Your task to perform on an android device: open app "Nova Launcher" Image 0: 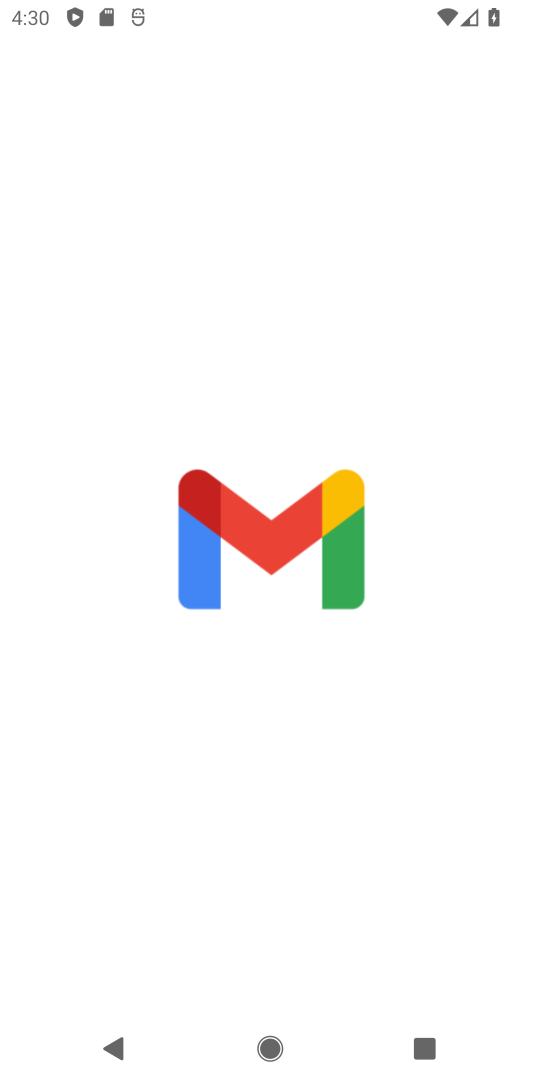
Step 0: click (255, 271)
Your task to perform on an android device: open app "Nova Launcher" Image 1: 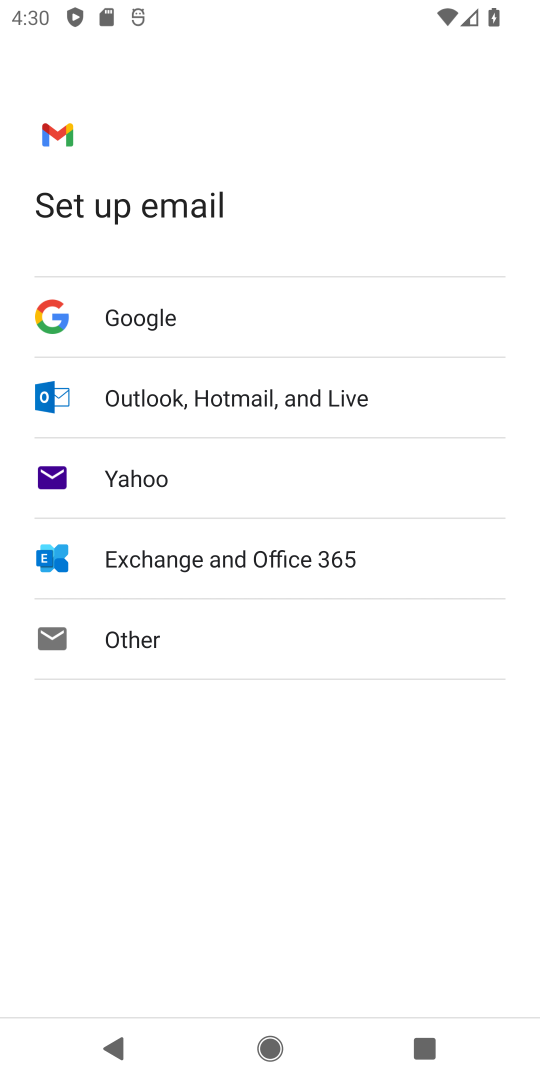
Step 1: press back button
Your task to perform on an android device: open app "Nova Launcher" Image 2: 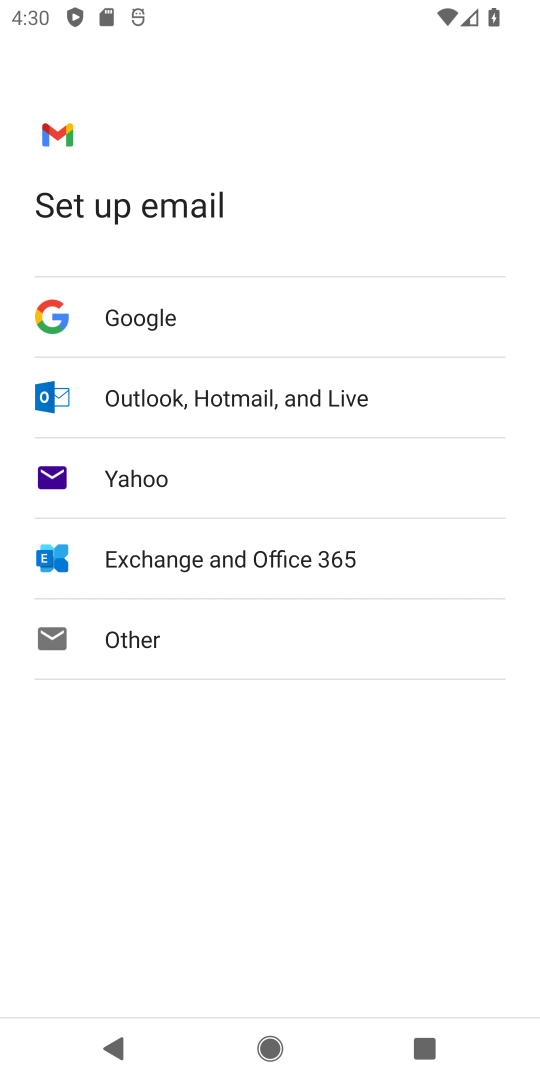
Step 2: press back button
Your task to perform on an android device: open app "Nova Launcher" Image 3: 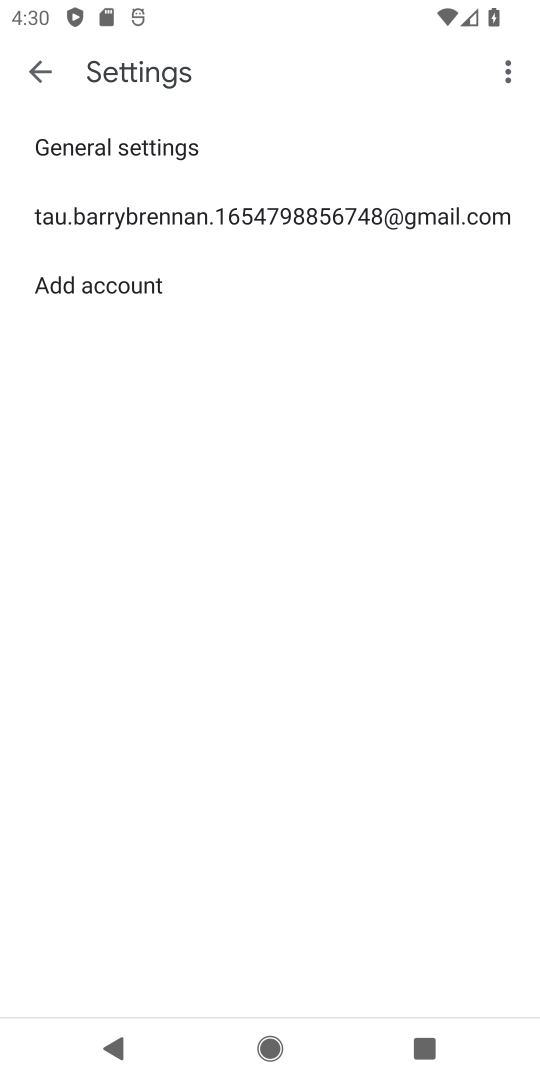
Step 3: press back button
Your task to perform on an android device: open app "Nova Launcher" Image 4: 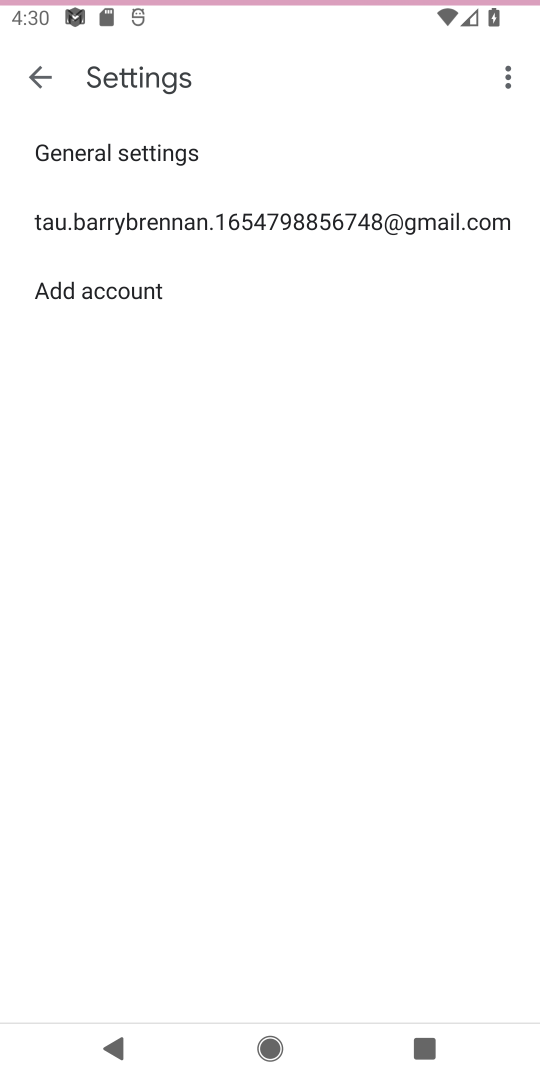
Step 4: press back button
Your task to perform on an android device: open app "Nova Launcher" Image 5: 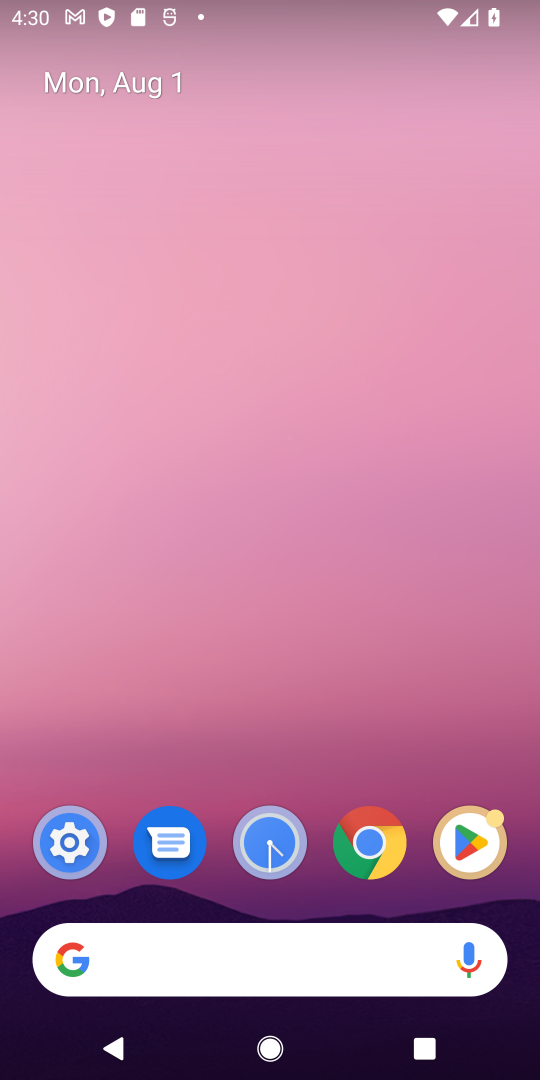
Step 5: click (448, 837)
Your task to perform on an android device: open app "Nova Launcher" Image 6: 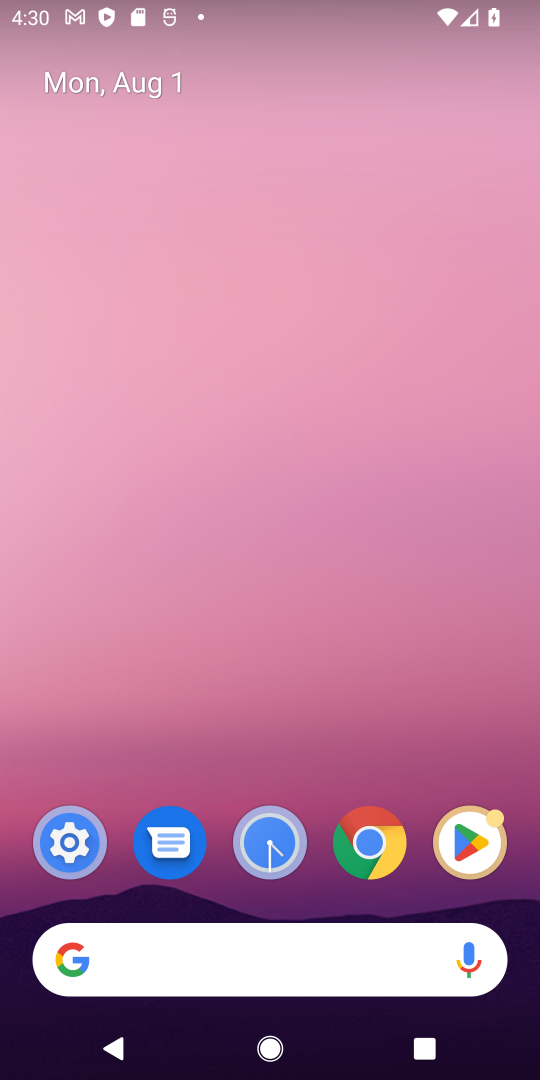
Step 6: drag from (462, 823) to (507, 855)
Your task to perform on an android device: open app "Nova Launcher" Image 7: 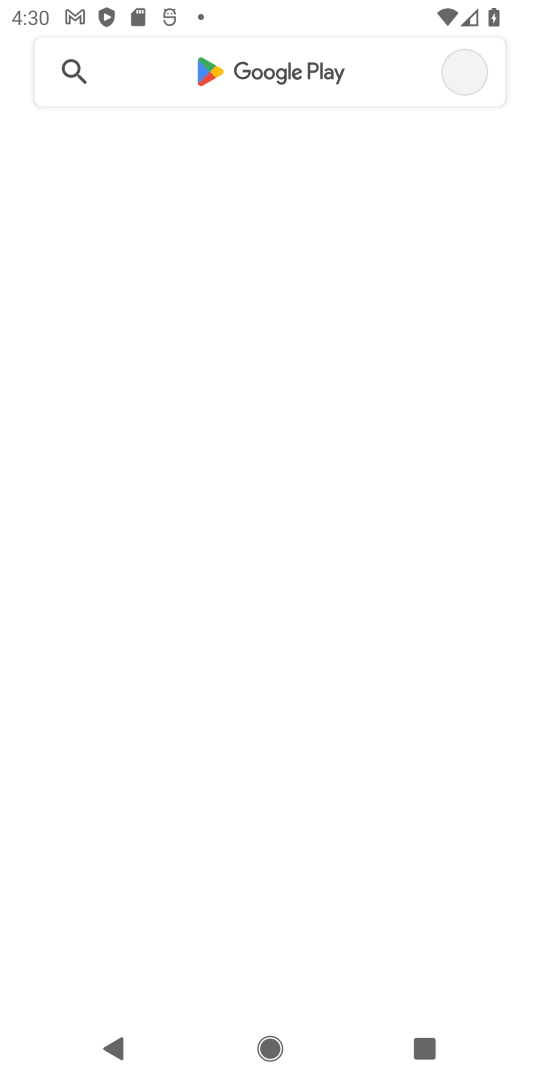
Step 7: click (453, 838)
Your task to perform on an android device: open app "Nova Launcher" Image 8: 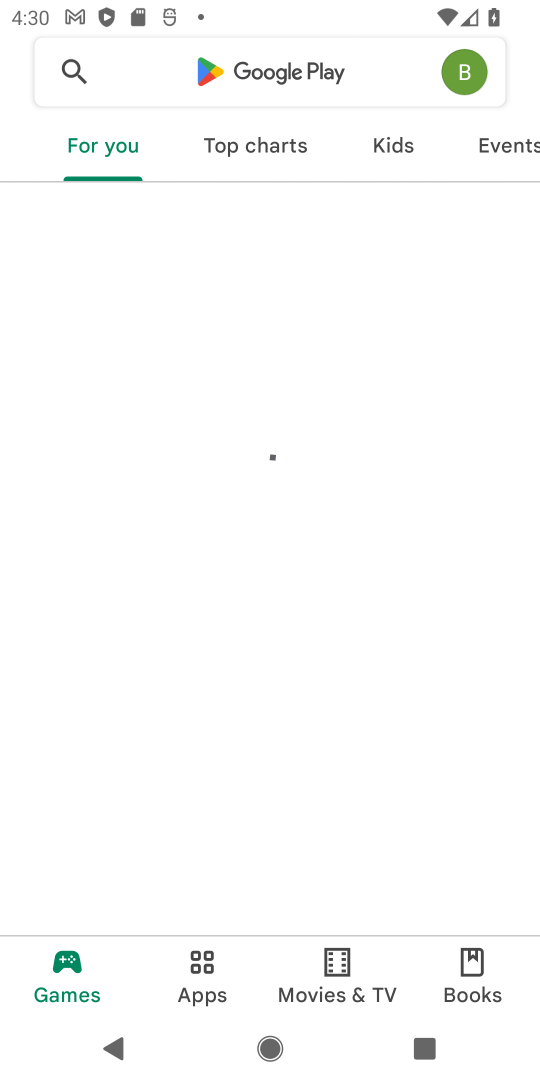
Step 8: click (223, 62)
Your task to perform on an android device: open app "Nova Launcher" Image 9: 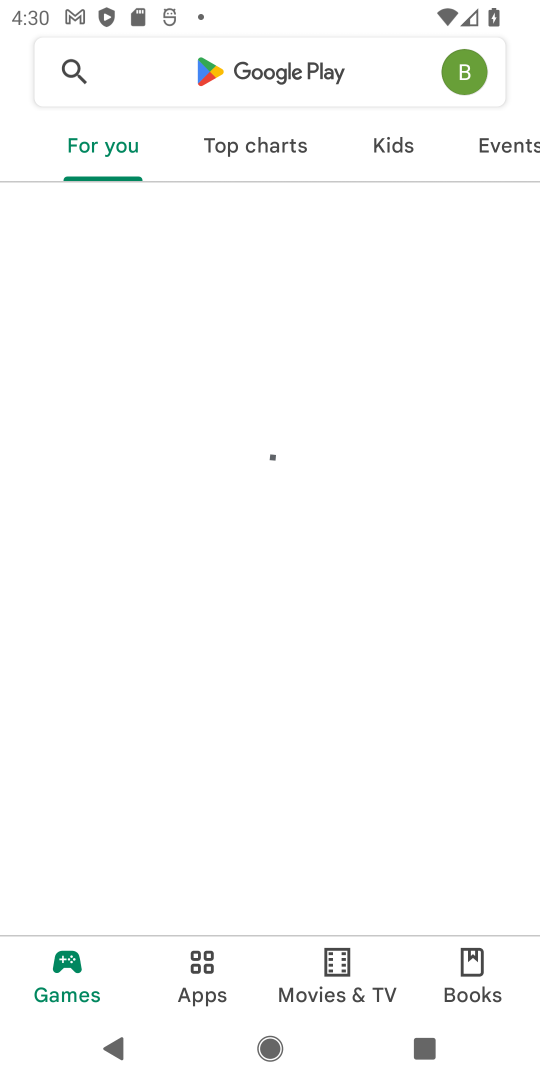
Step 9: click (205, 76)
Your task to perform on an android device: open app "Nova Launcher" Image 10: 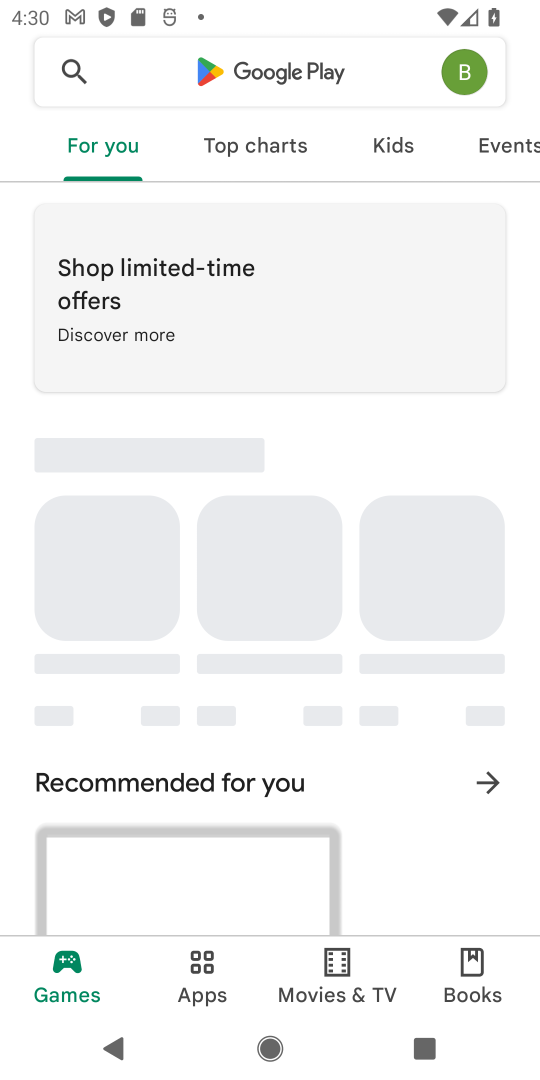
Step 10: click (207, 77)
Your task to perform on an android device: open app "Nova Launcher" Image 11: 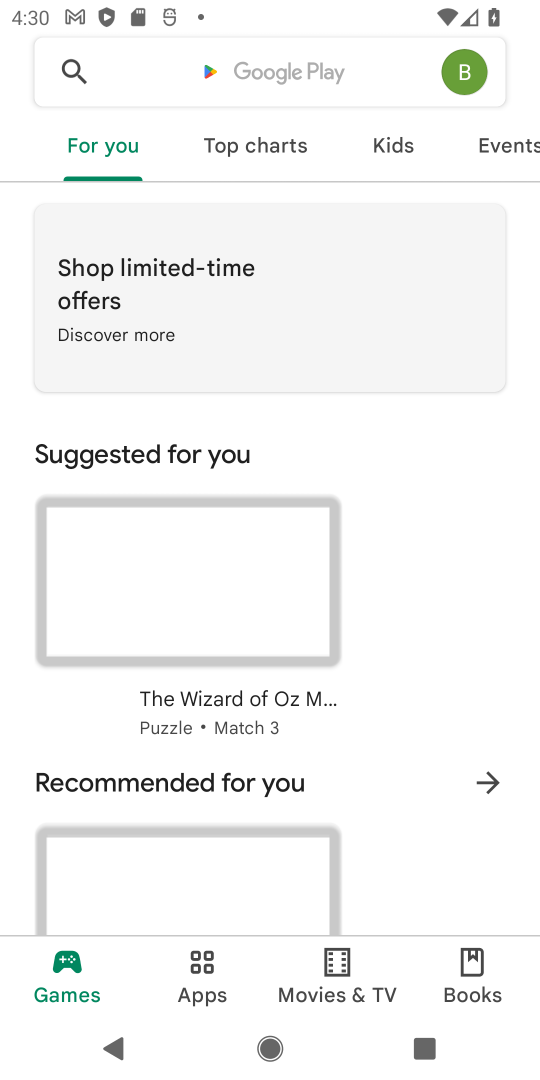
Step 11: click (207, 77)
Your task to perform on an android device: open app "Nova Launcher" Image 12: 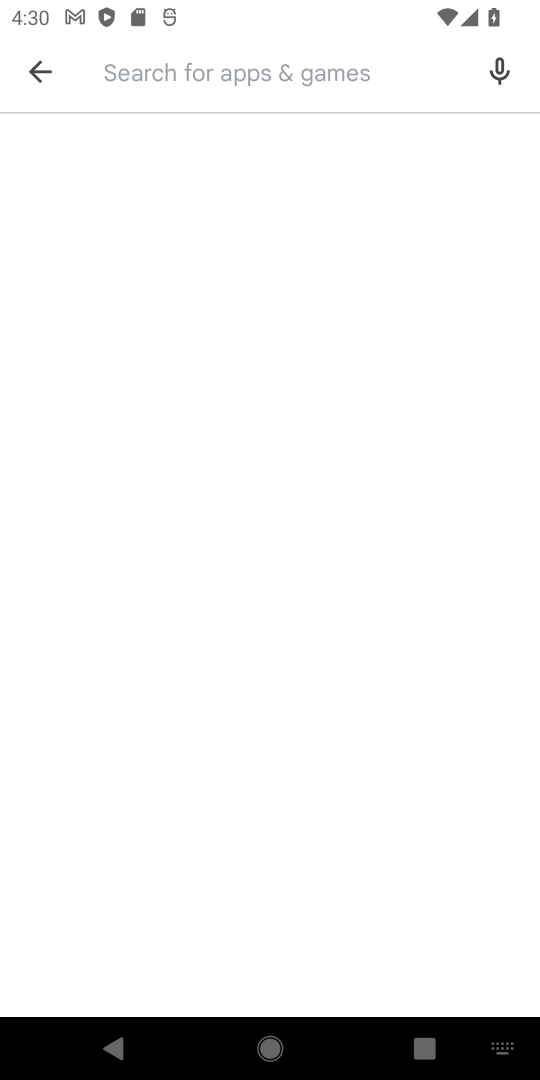
Step 12: type "Nova Launcher"
Your task to perform on an android device: open app "Nova Launcher" Image 13: 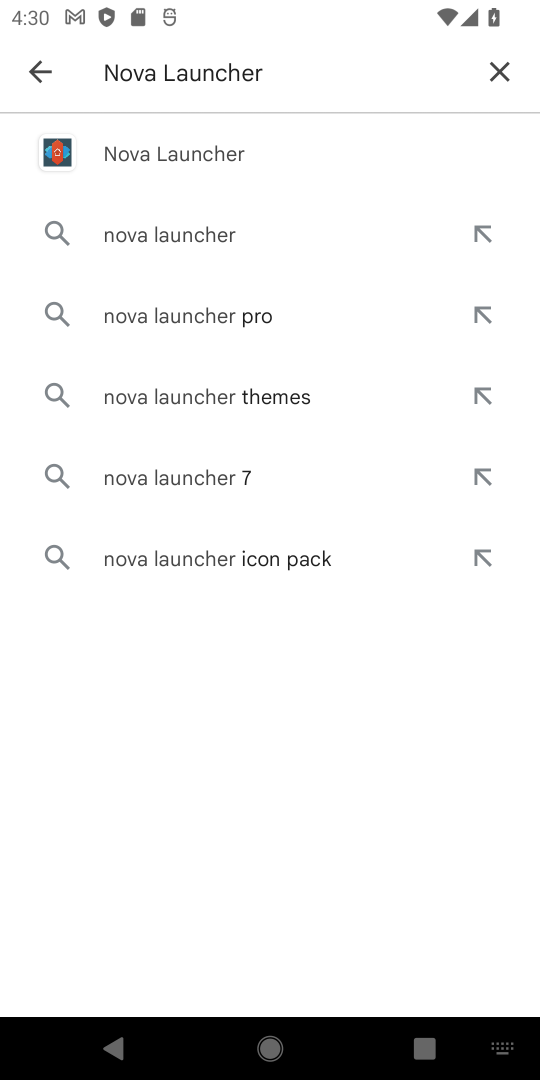
Step 13: click (198, 158)
Your task to perform on an android device: open app "Nova Launcher" Image 14: 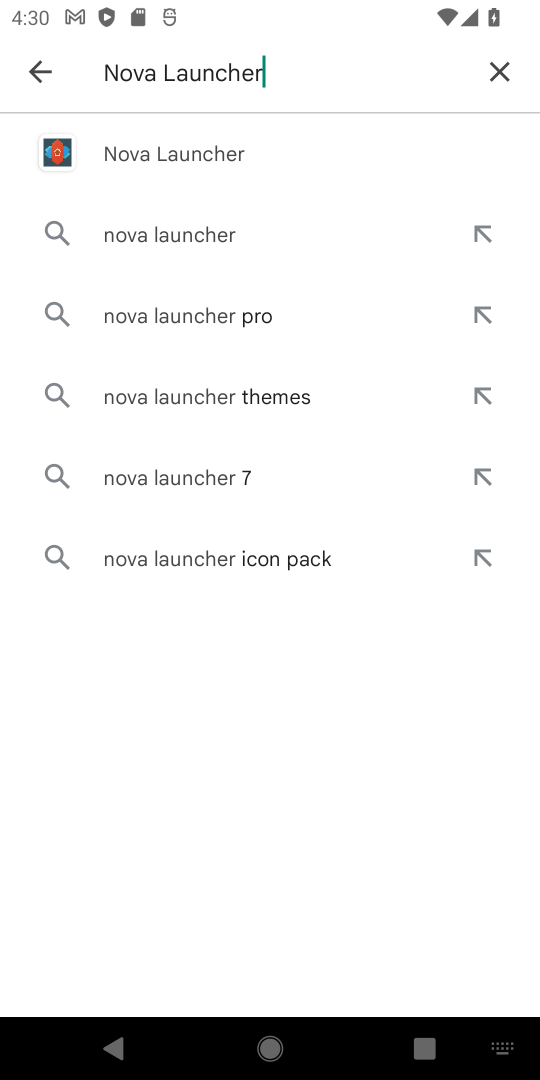
Step 14: click (212, 173)
Your task to perform on an android device: open app "Nova Launcher" Image 15: 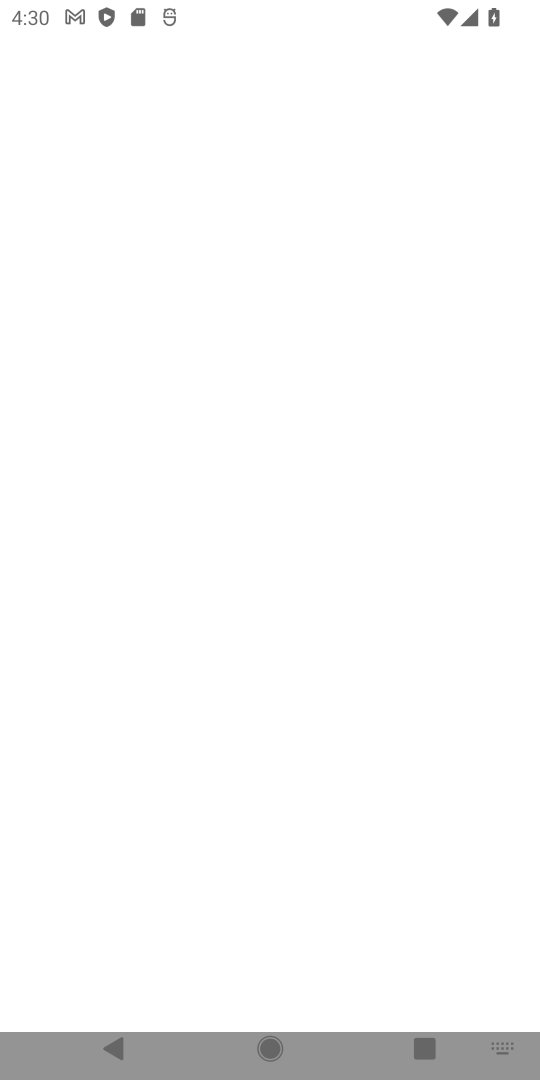
Step 15: click (212, 176)
Your task to perform on an android device: open app "Nova Launcher" Image 16: 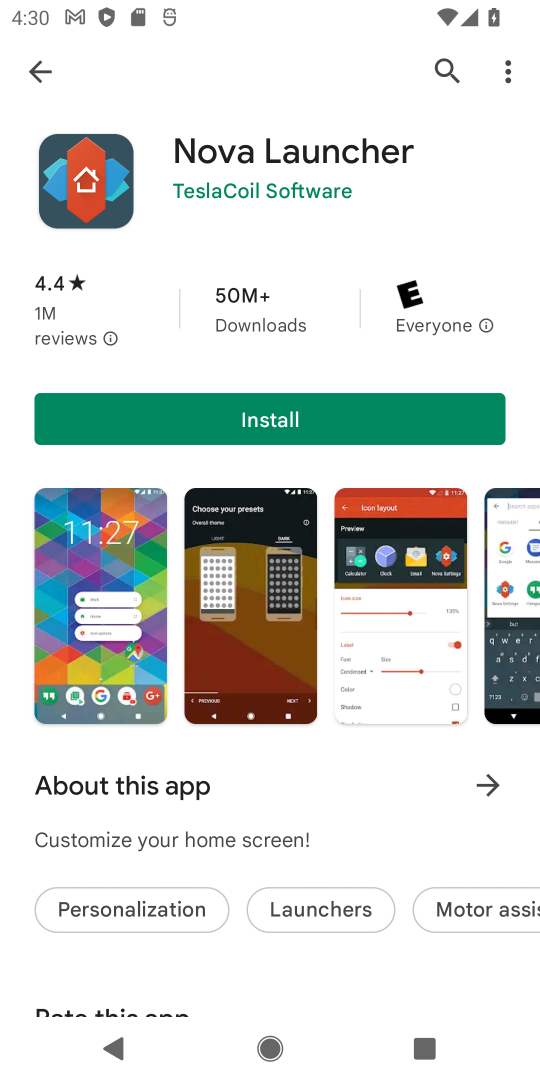
Step 16: click (331, 427)
Your task to perform on an android device: open app "Nova Launcher" Image 17: 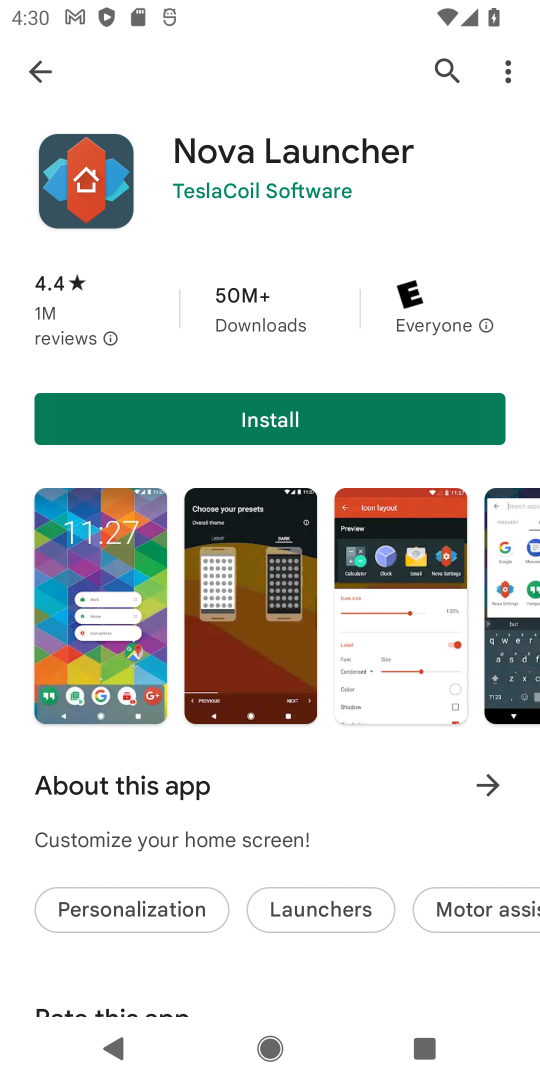
Step 17: click (331, 430)
Your task to perform on an android device: open app "Nova Launcher" Image 18: 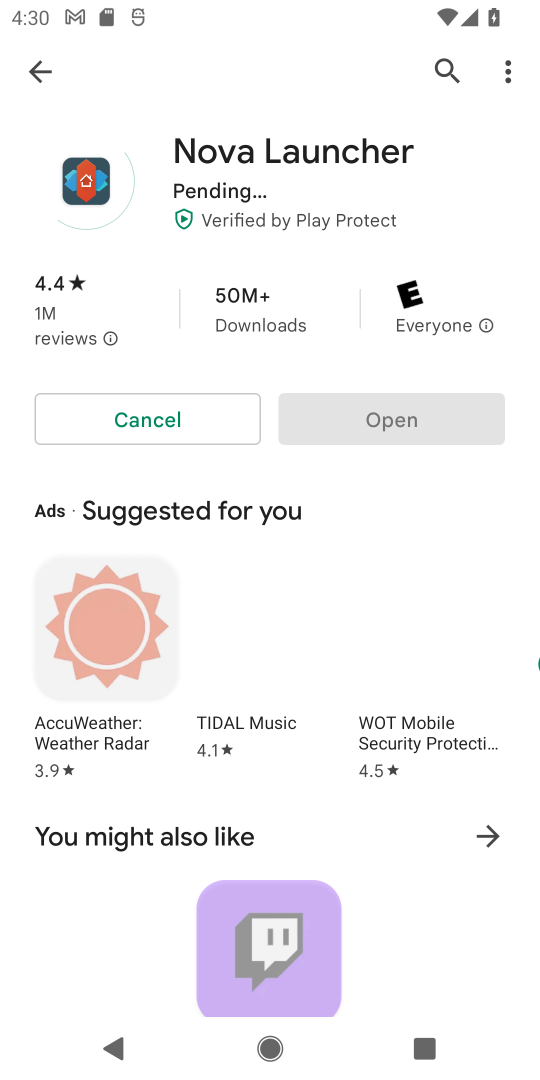
Step 18: click (331, 431)
Your task to perform on an android device: open app "Nova Launcher" Image 19: 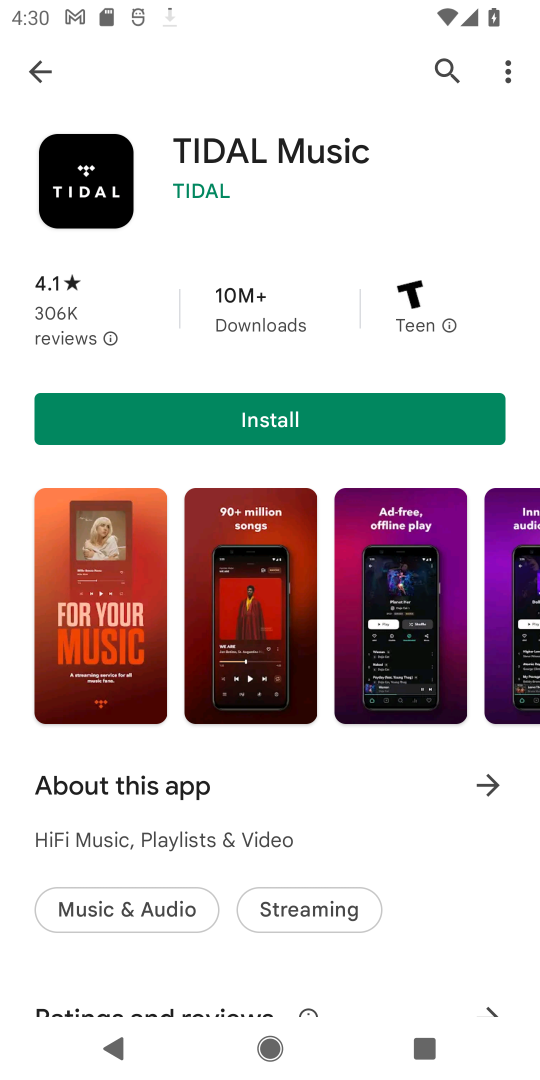
Step 19: click (307, 412)
Your task to perform on an android device: open app "Nova Launcher" Image 20: 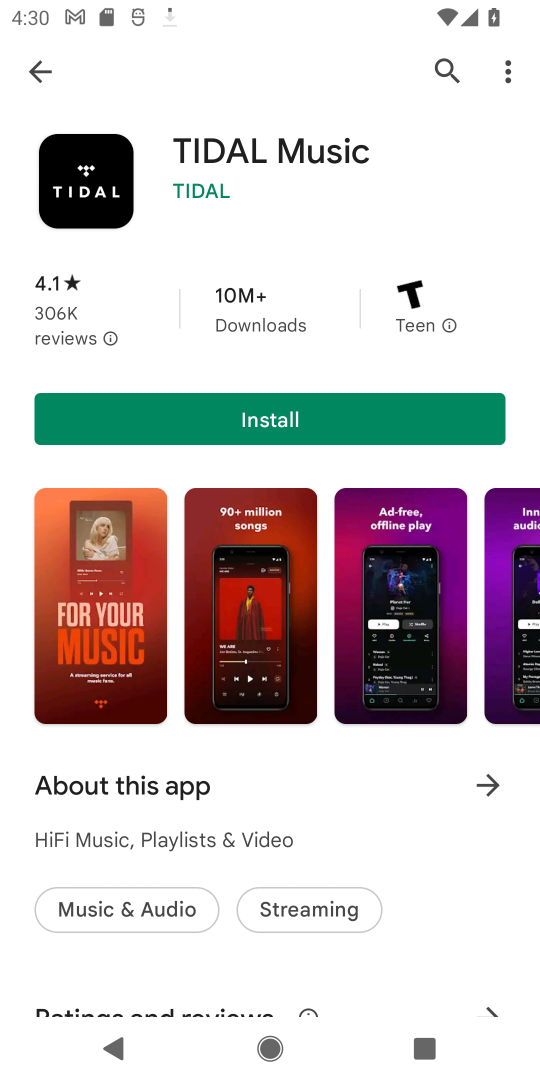
Step 20: click (41, 72)
Your task to perform on an android device: open app "Nova Launcher" Image 21: 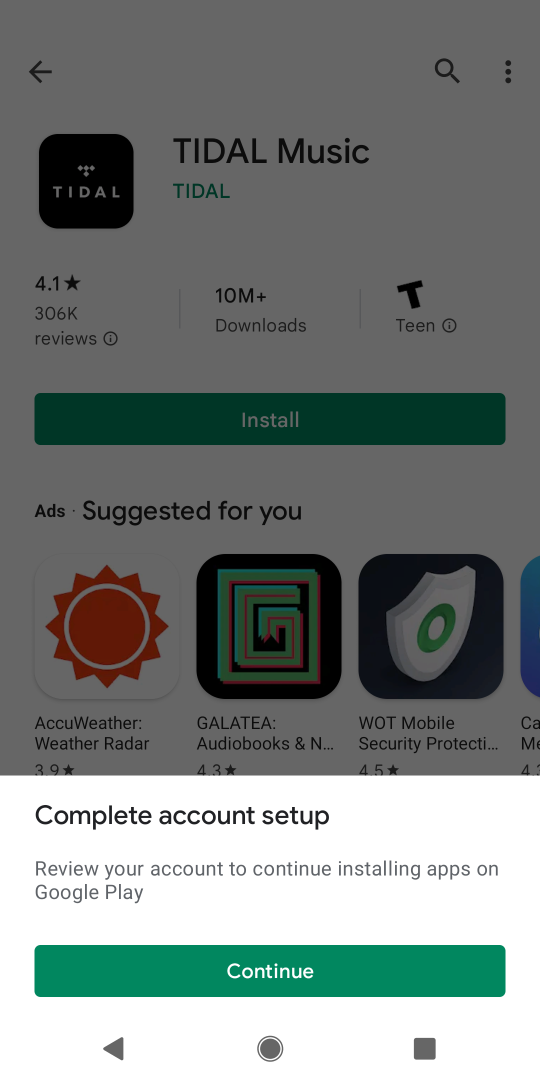
Step 21: click (25, 72)
Your task to perform on an android device: open app "Nova Launcher" Image 22: 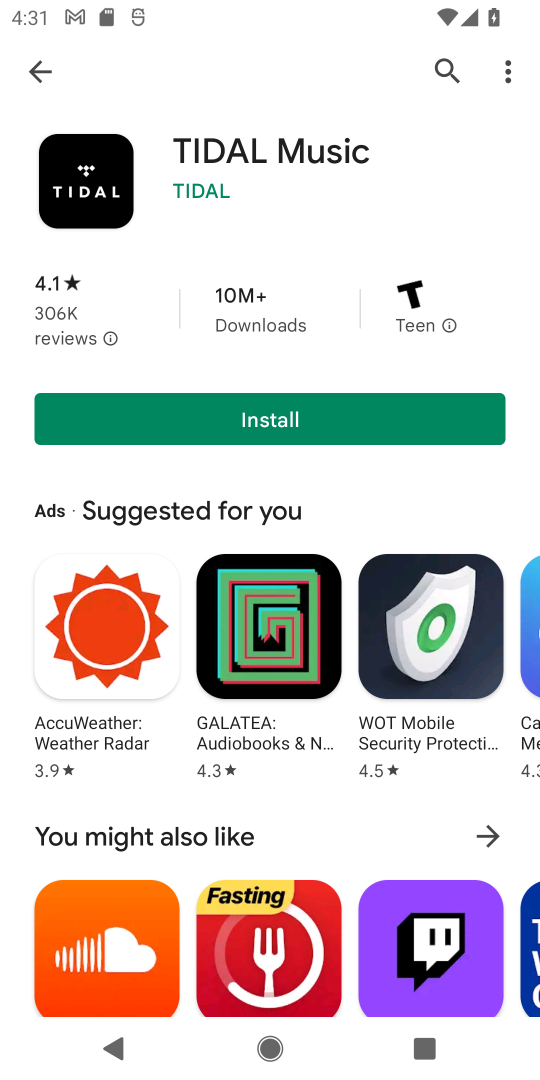
Step 22: click (28, 76)
Your task to perform on an android device: open app "Nova Launcher" Image 23: 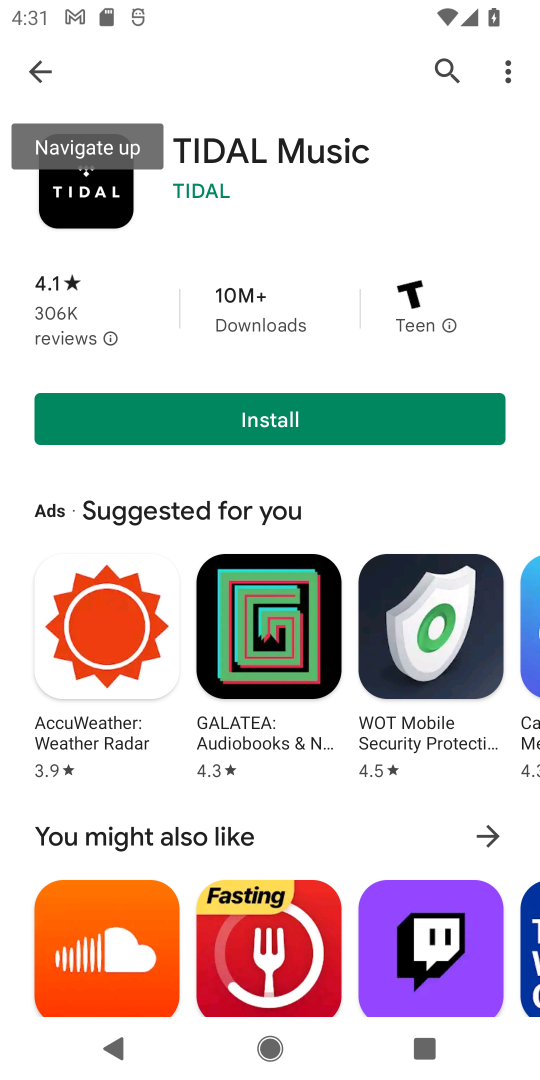
Step 23: click (28, 76)
Your task to perform on an android device: open app "Nova Launcher" Image 24: 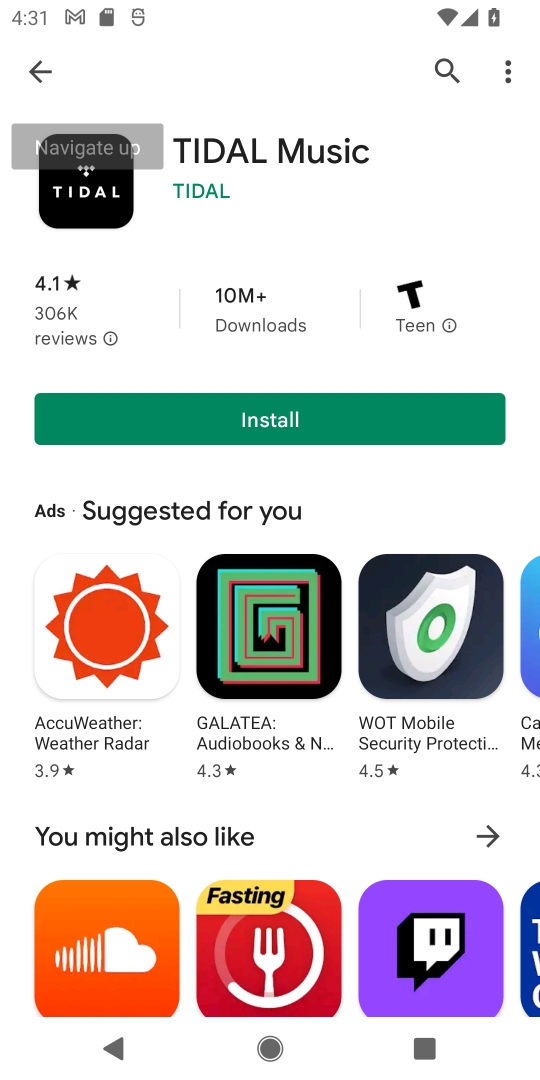
Step 24: click (36, 76)
Your task to perform on an android device: open app "Nova Launcher" Image 25: 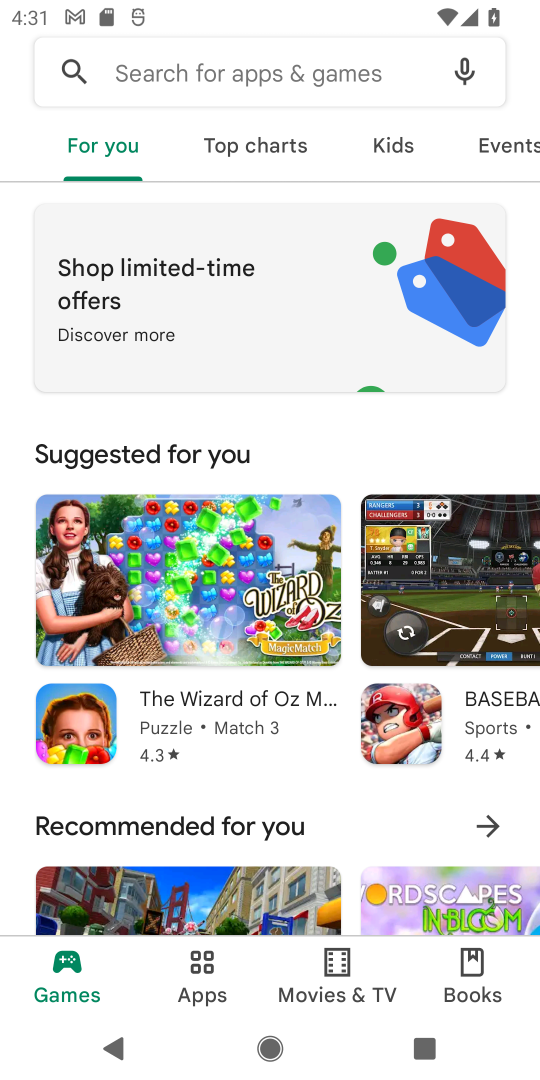
Step 25: click (168, 76)
Your task to perform on an android device: open app "Nova Launcher" Image 26: 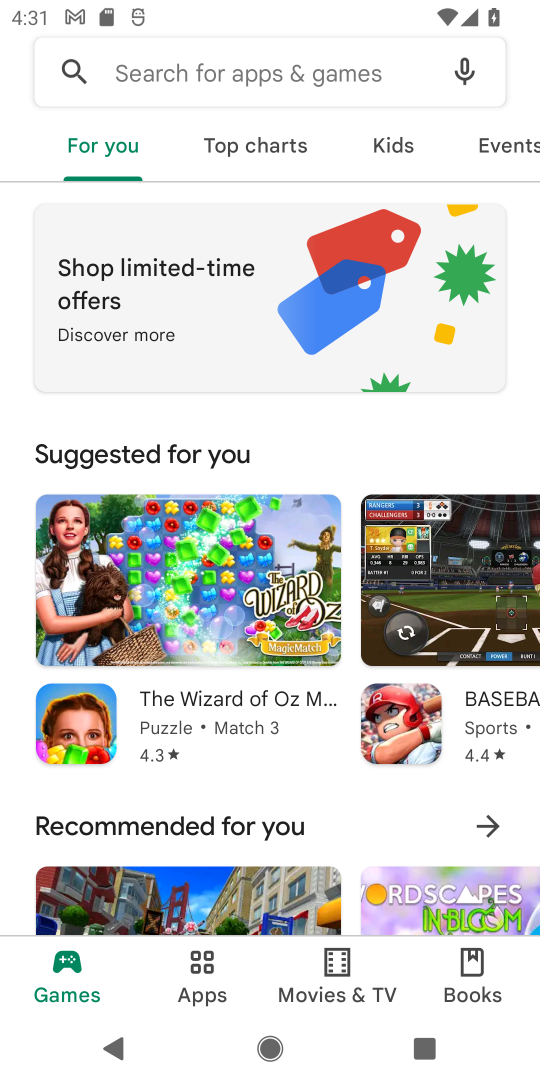
Step 26: click (180, 83)
Your task to perform on an android device: open app "Nova Launcher" Image 27: 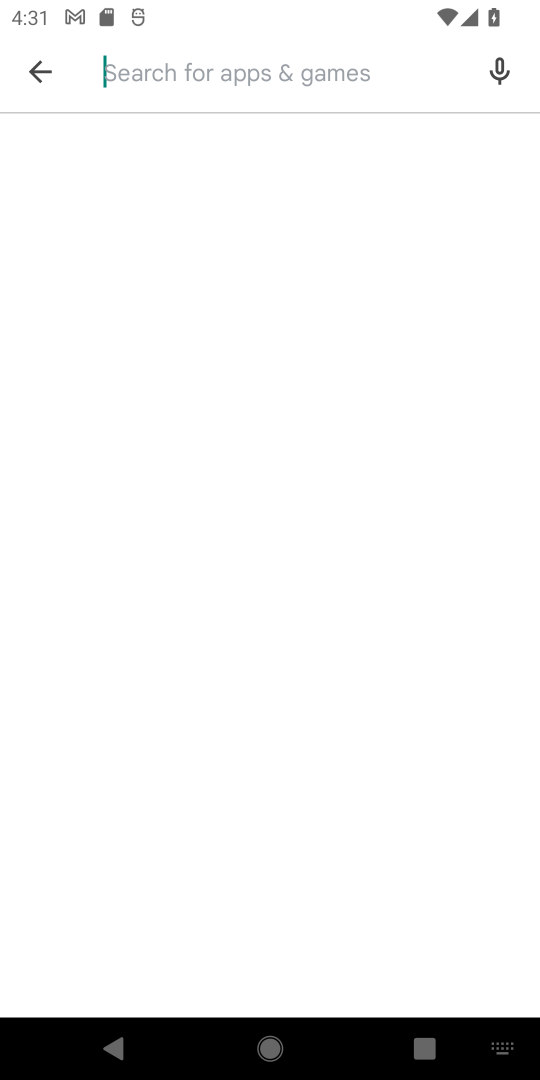
Step 27: click (182, 86)
Your task to perform on an android device: open app "Nova Launcher" Image 28: 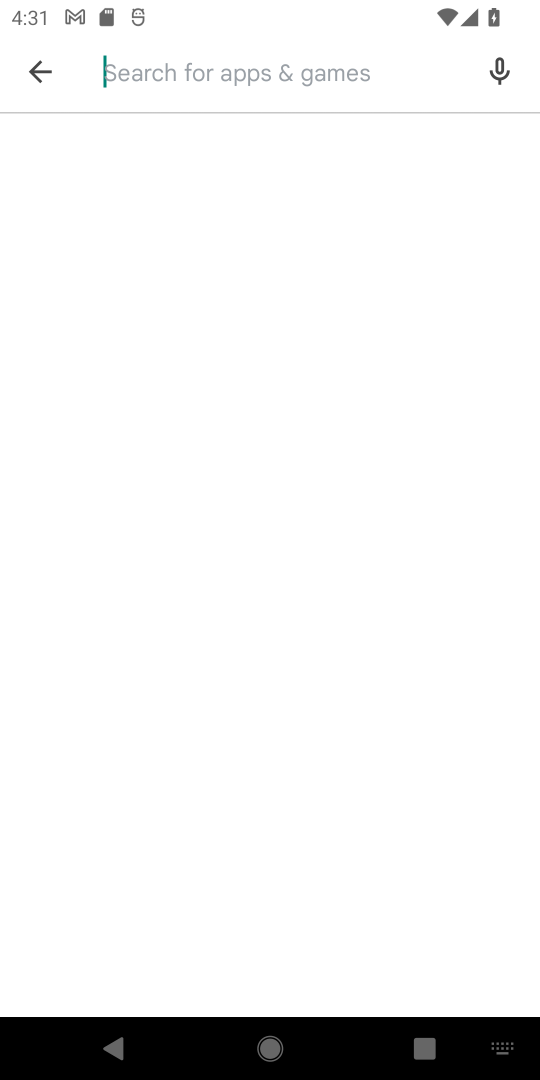
Step 28: type "Nova Launcher"
Your task to perform on an android device: open app "Nova Launcher" Image 29: 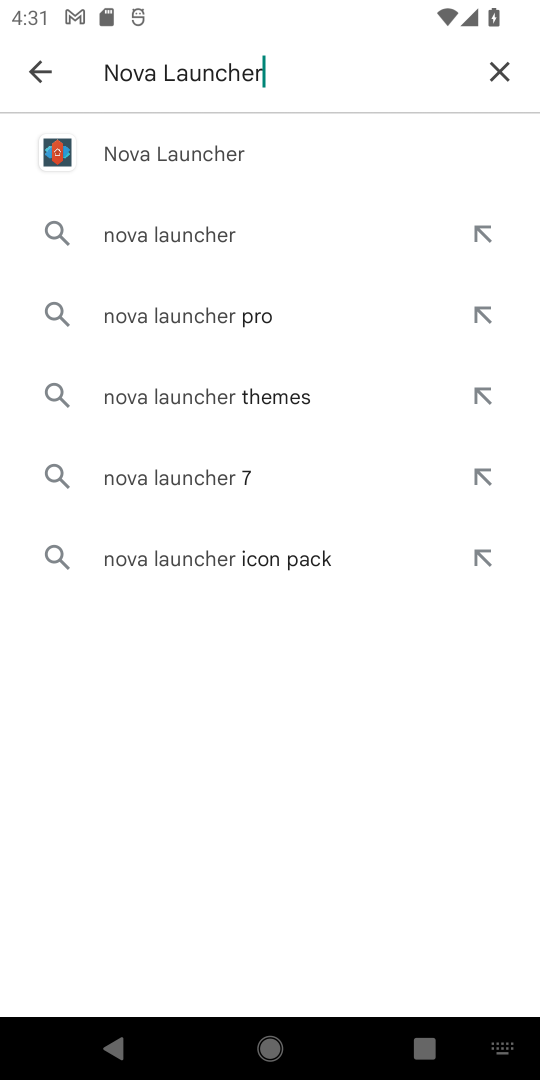
Step 29: click (208, 159)
Your task to perform on an android device: open app "Nova Launcher" Image 30: 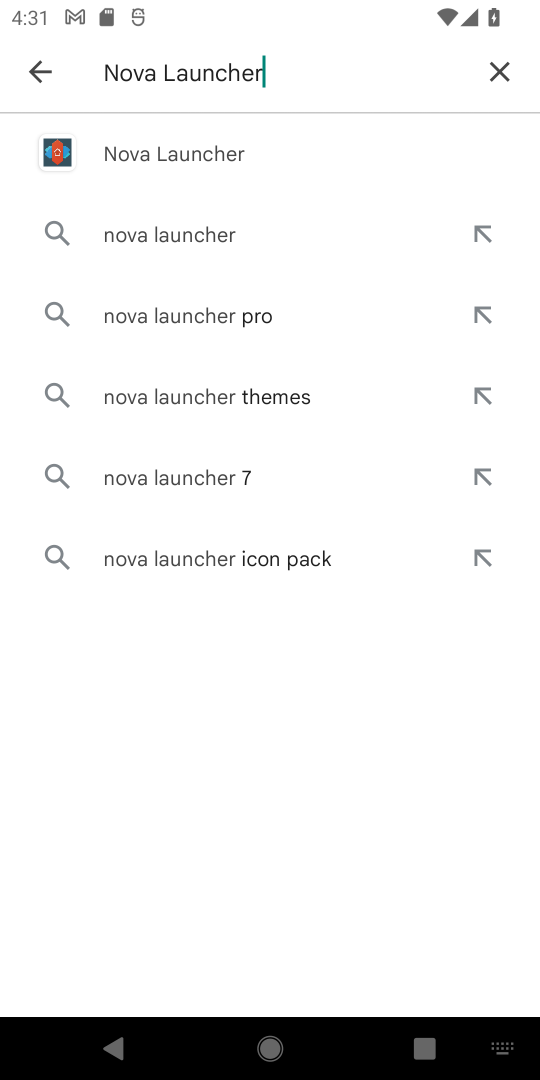
Step 30: click (208, 159)
Your task to perform on an android device: open app "Nova Launcher" Image 31: 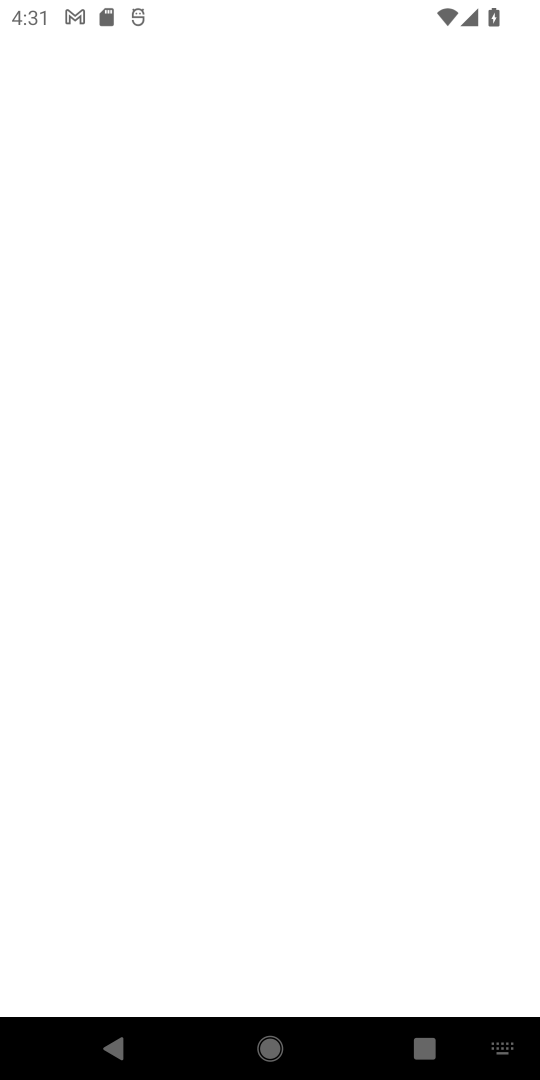
Step 31: click (207, 158)
Your task to perform on an android device: open app "Nova Launcher" Image 32: 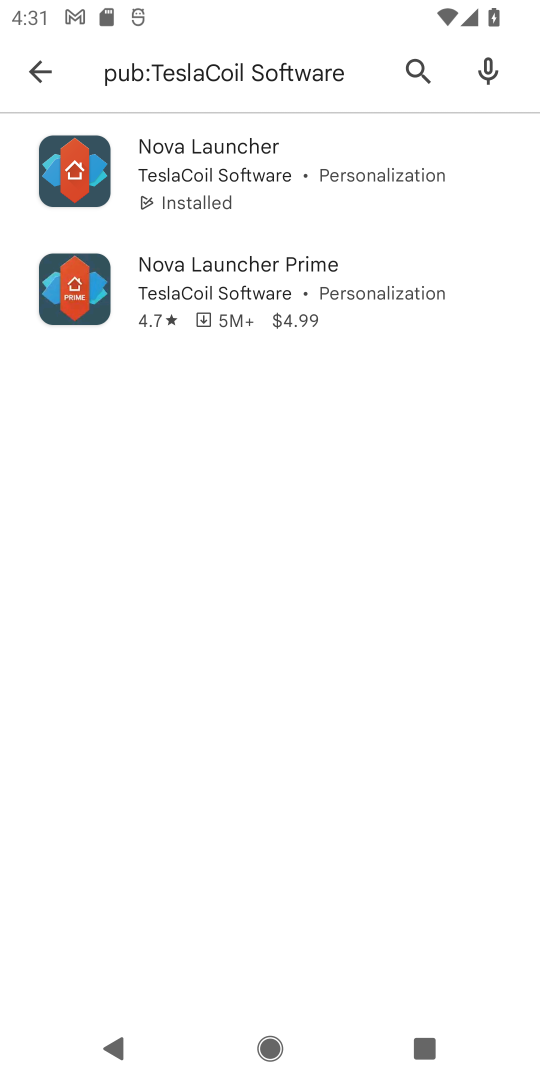
Step 32: click (186, 149)
Your task to perform on an android device: open app "Nova Launcher" Image 33: 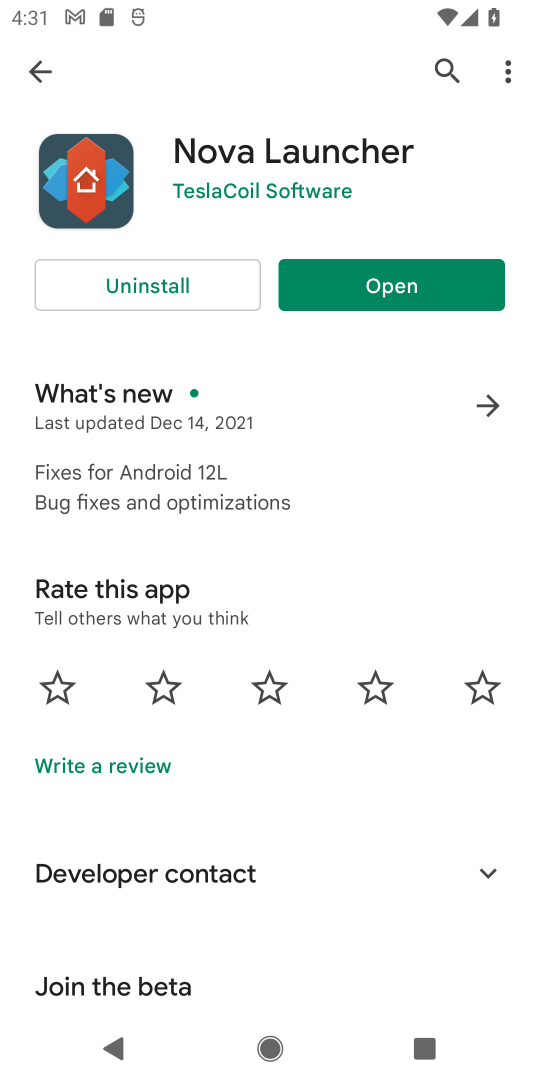
Step 33: click (376, 292)
Your task to perform on an android device: open app "Nova Launcher" Image 34: 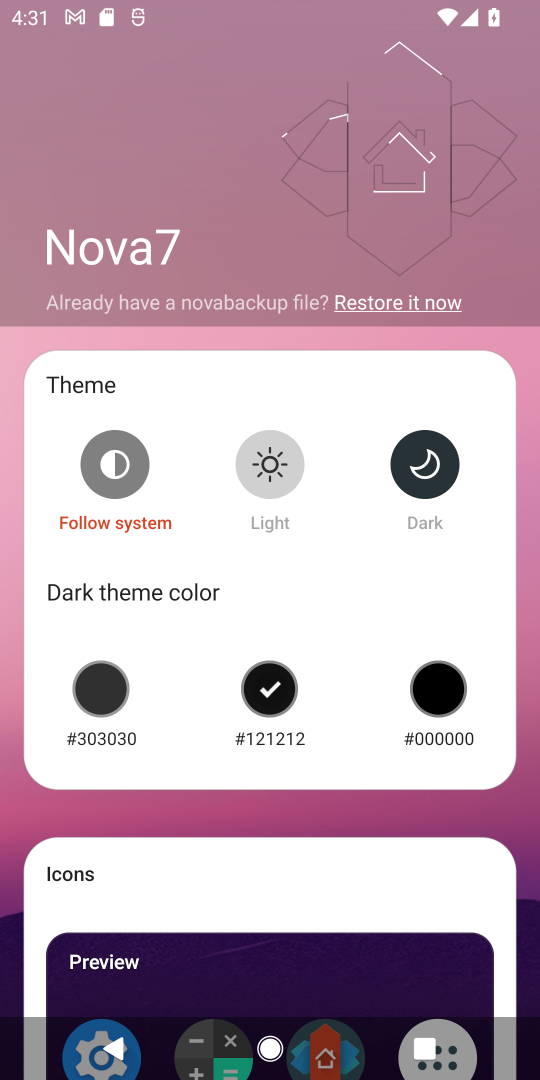
Step 34: task complete